Your task to perform on an android device: change notification settings in the gmail app Image 0: 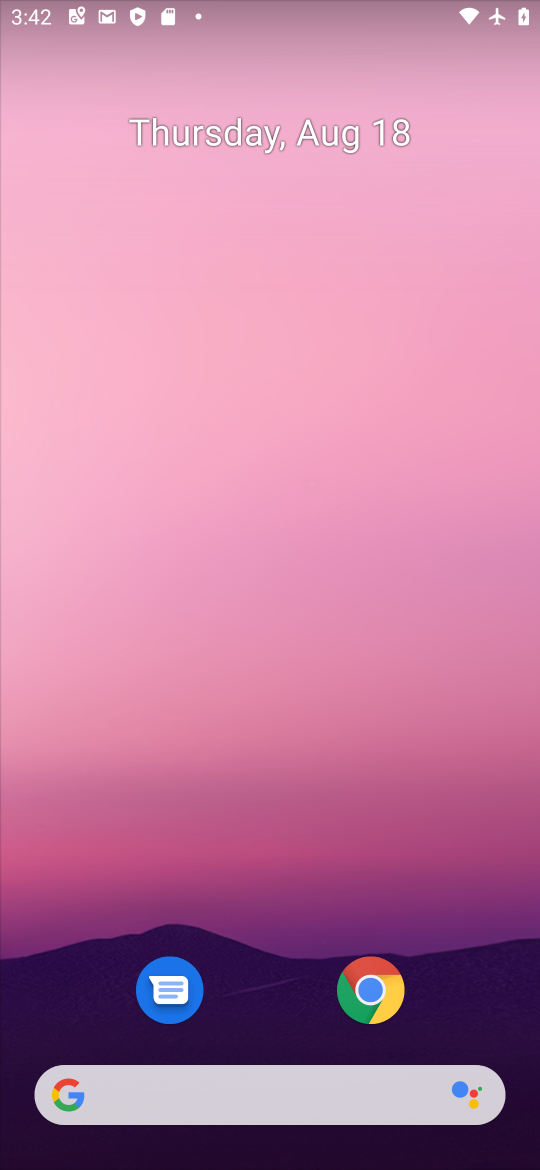
Step 0: drag from (465, 939) to (478, 149)
Your task to perform on an android device: change notification settings in the gmail app Image 1: 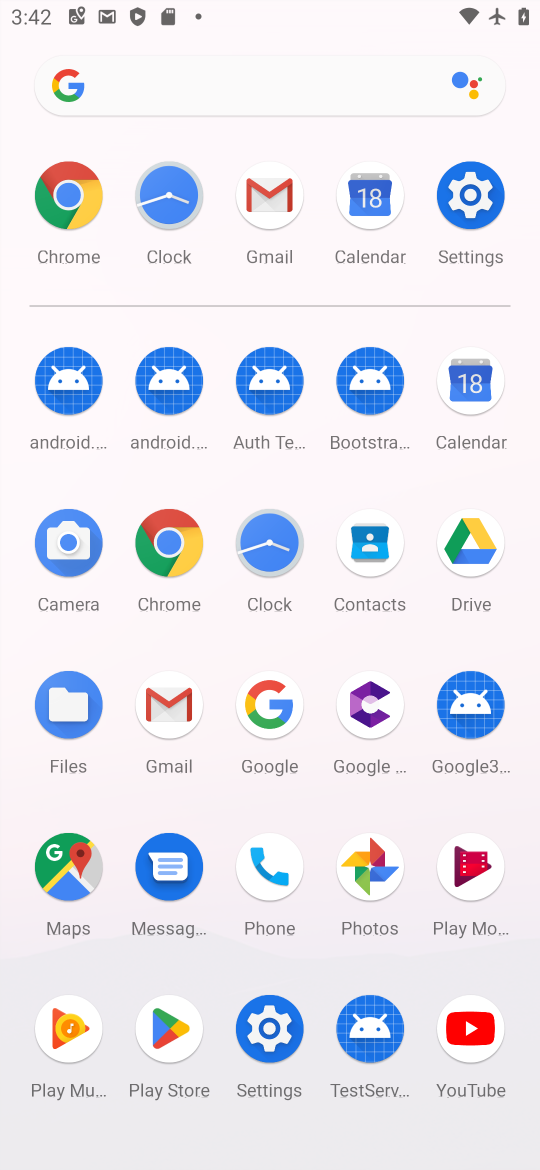
Step 1: click (162, 689)
Your task to perform on an android device: change notification settings in the gmail app Image 2: 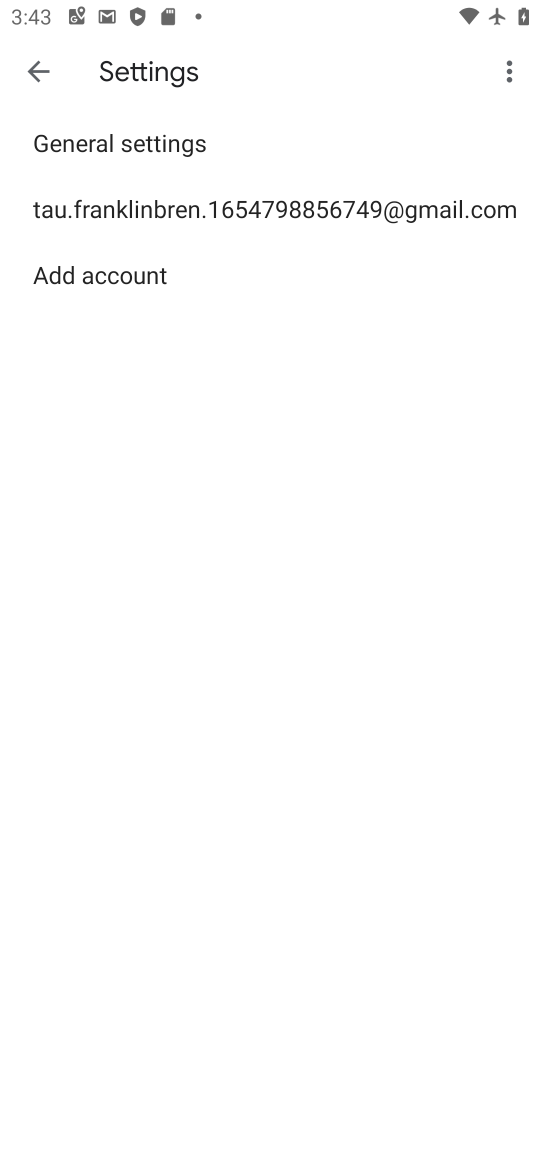
Step 2: click (201, 194)
Your task to perform on an android device: change notification settings in the gmail app Image 3: 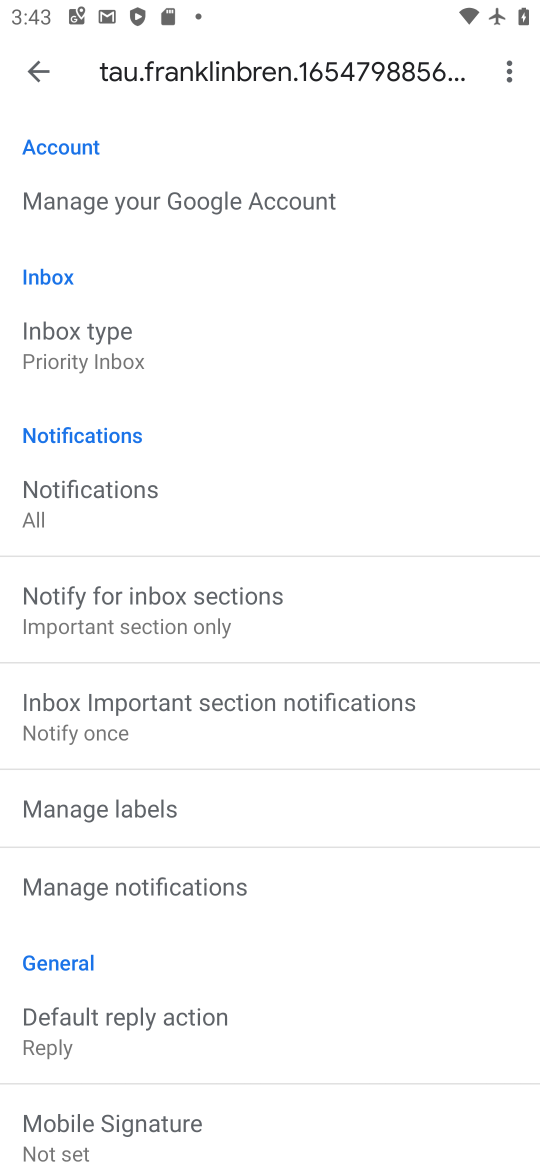
Step 3: click (196, 899)
Your task to perform on an android device: change notification settings in the gmail app Image 4: 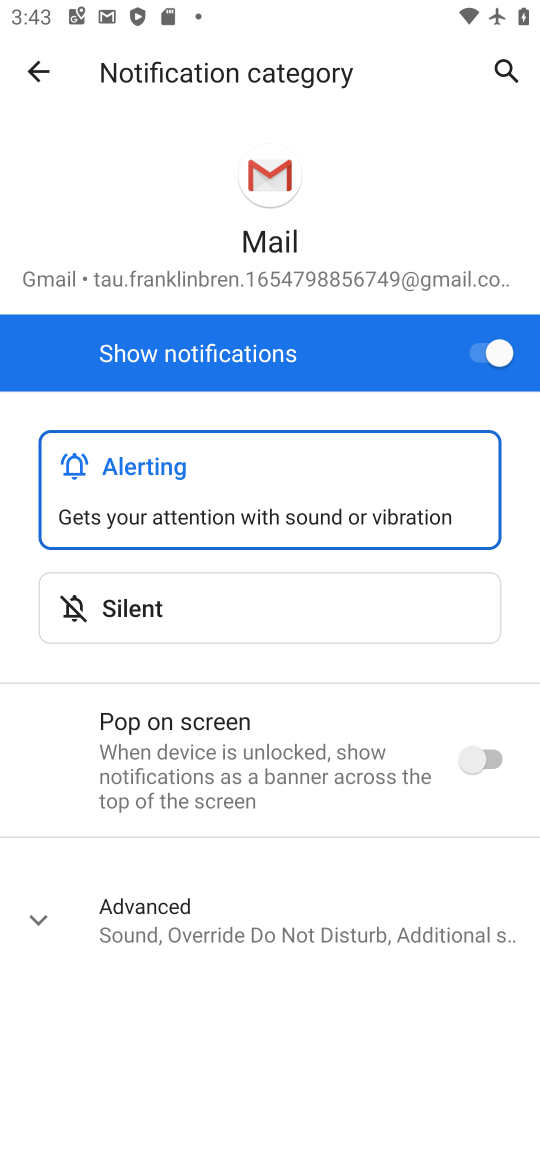
Step 4: click (200, 899)
Your task to perform on an android device: change notification settings in the gmail app Image 5: 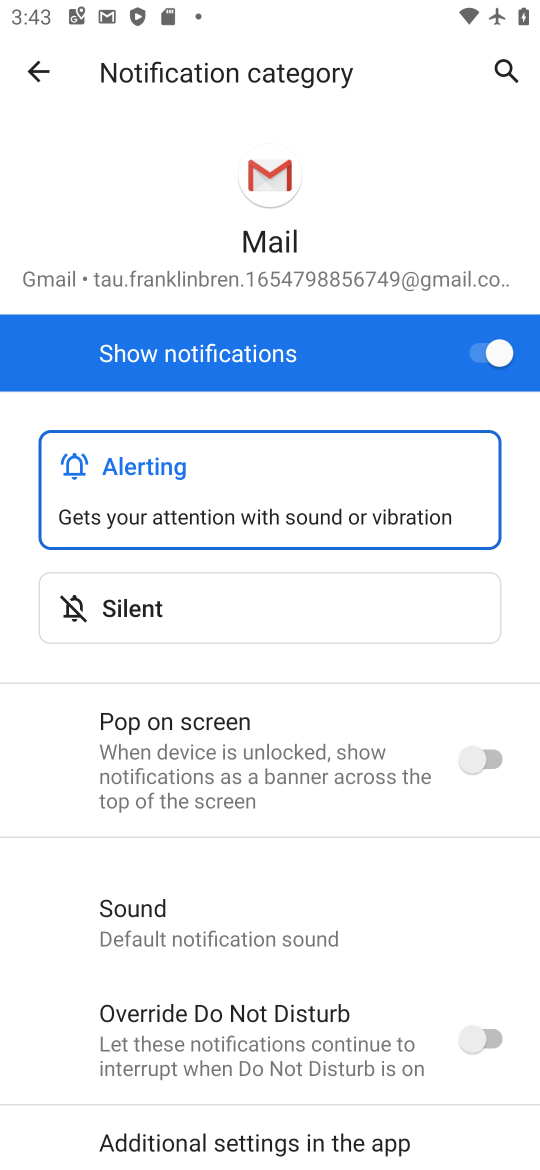
Step 5: click (491, 371)
Your task to perform on an android device: change notification settings in the gmail app Image 6: 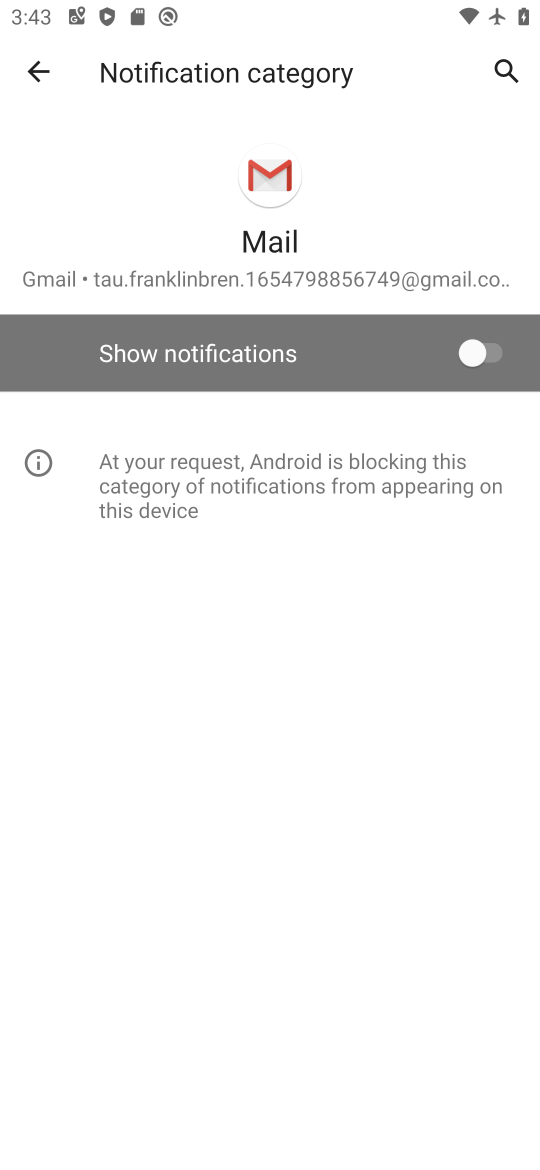
Step 6: task complete